Your task to perform on an android device: Go to Maps Image 0: 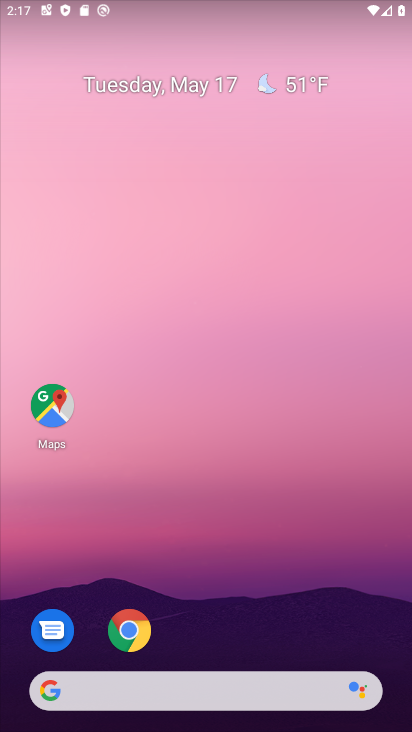
Step 0: click (42, 398)
Your task to perform on an android device: Go to Maps Image 1: 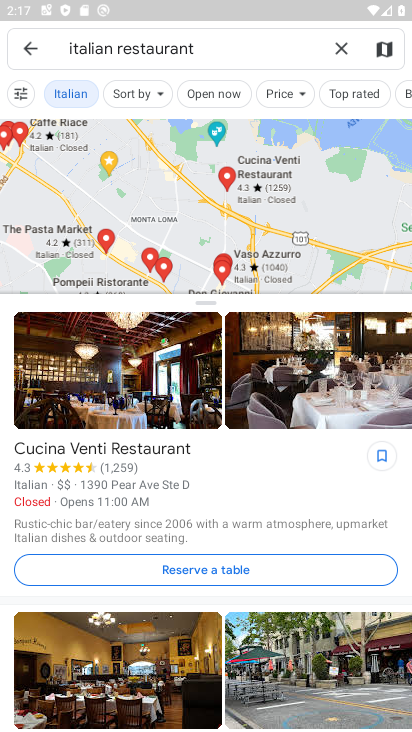
Step 1: task complete